Your task to perform on an android device: turn off data saver in the chrome app Image 0: 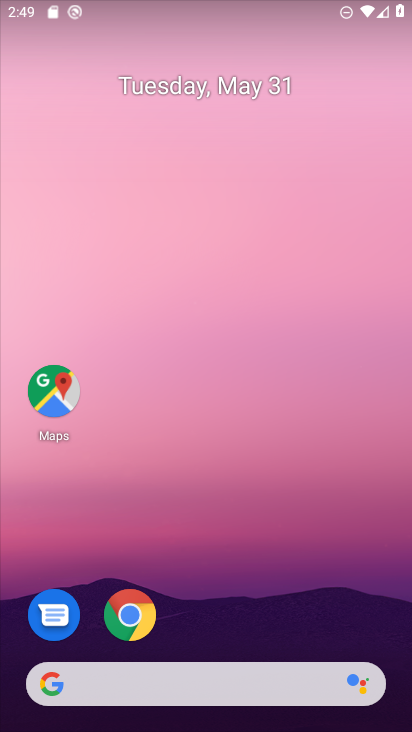
Step 0: drag from (287, 605) to (217, 192)
Your task to perform on an android device: turn off data saver in the chrome app Image 1: 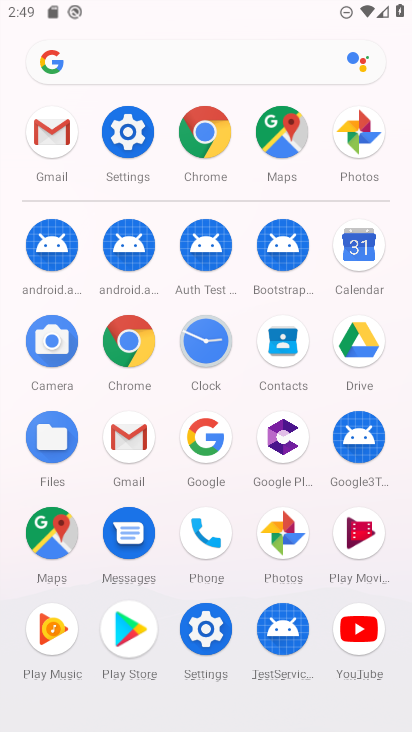
Step 1: click (205, 133)
Your task to perform on an android device: turn off data saver in the chrome app Image 2: 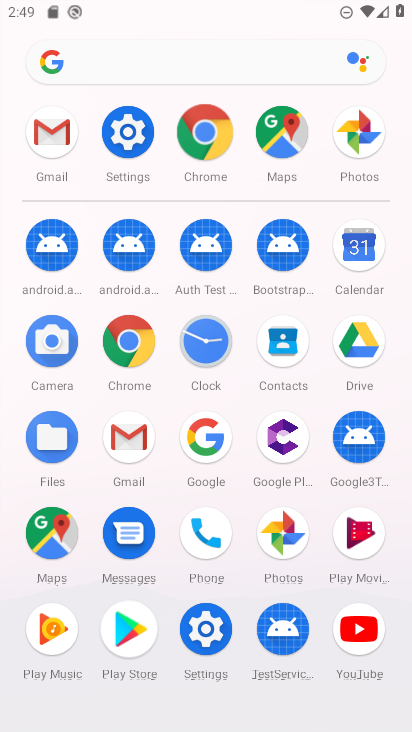
Step 2: click (205, 133)
Your task to perform on an android device: turn off data saver in the chrome app Image 3: 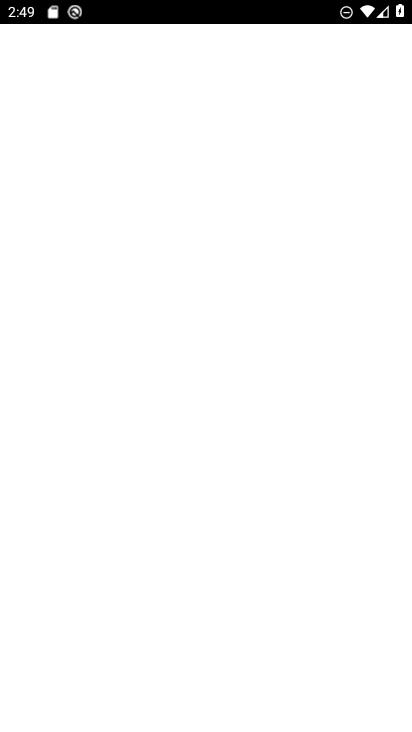
Step 3: click (205, 126)
Your task to perform on an android device: turn off data saver in the chrome app Image 4: 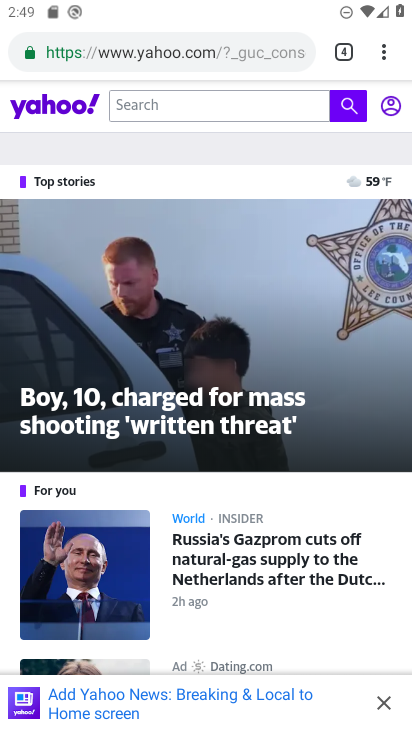
Step 4: drag from (380, 54) to (166, 509)
Your task to perform on an android device: turn off data saver in the chrome app Image 5: 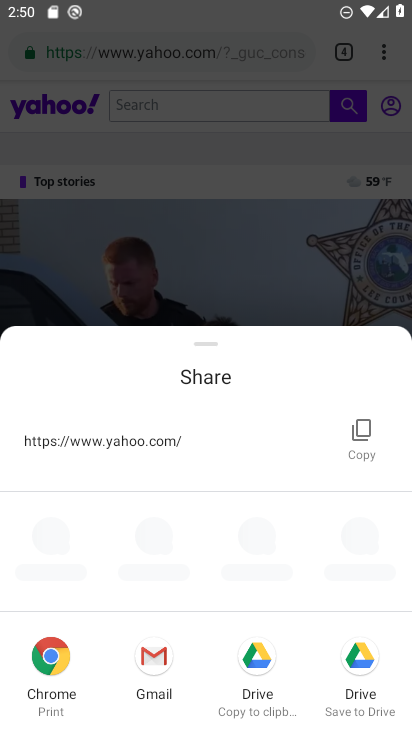
Step 5: click (255, 257)
Your task to perform on an android device: turn off data saver in the chrome app Image 6: 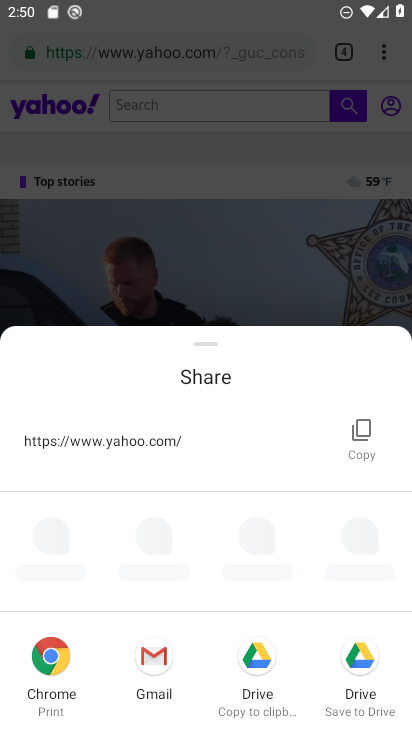
Step 6: click (255, 257)
Your task to perform on an android device: turn off data saver in the chrome app Image 7: 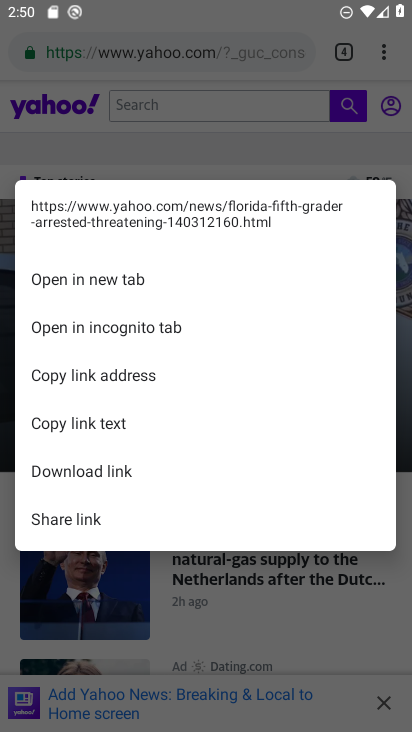
Step 7: click (382, 45)
Your task to perform on an android device: turn off data saver in the chrome app Image 8: 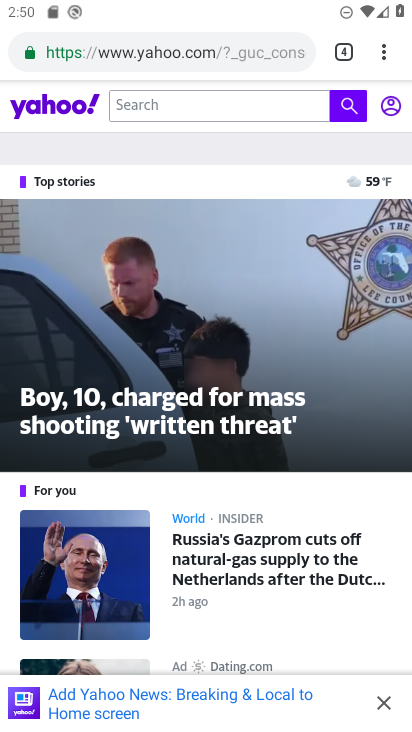
Step 8: drag from (380, 59) to (189, 646)
Your task to perform on an android device: turn off data saver in the chrome app Image 9: 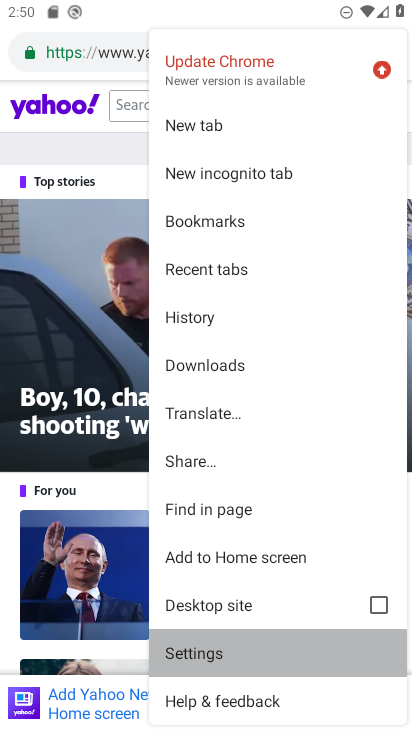
Step 9: click (180, 645)
Your task to perform on an android device: turn off data saver in the chrome app Image 10: 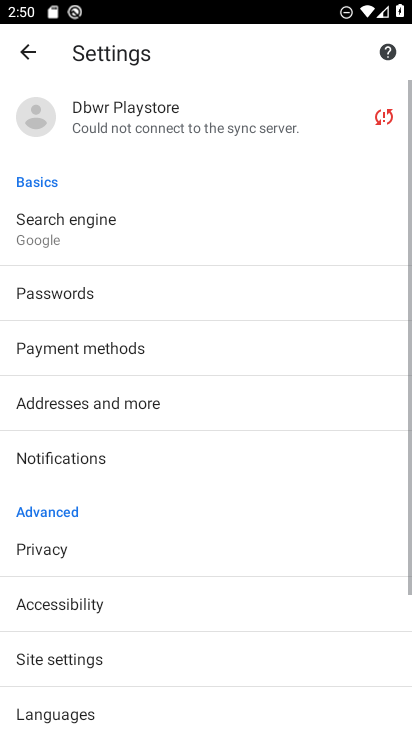
Step 10: drag from (147, 538) to (141, 177)
Your task to perform on an android device: turn off data saver in the chrome app Image 11: 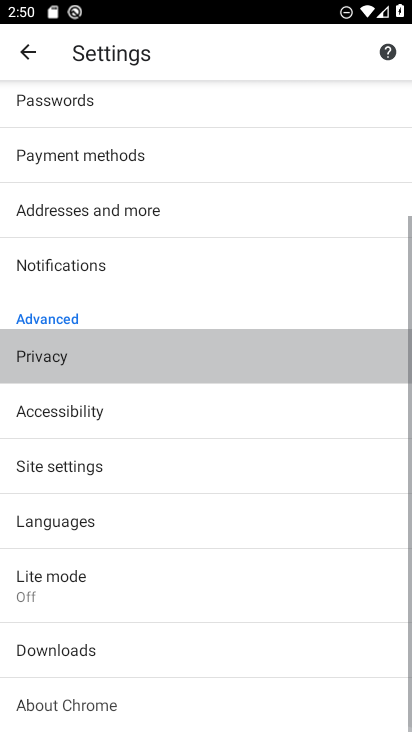
Step 11: drag from (229, 422) to (267, 286)
Your task to perform on an android device: turn off data saver in the chrome app Image 12: 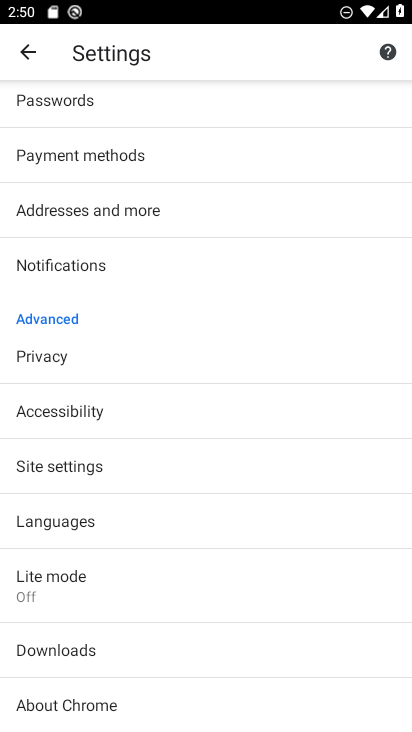
Step 12: click (49, 575)
Your task to perform on an android device: turn off data saver in the chrome app Image 13: 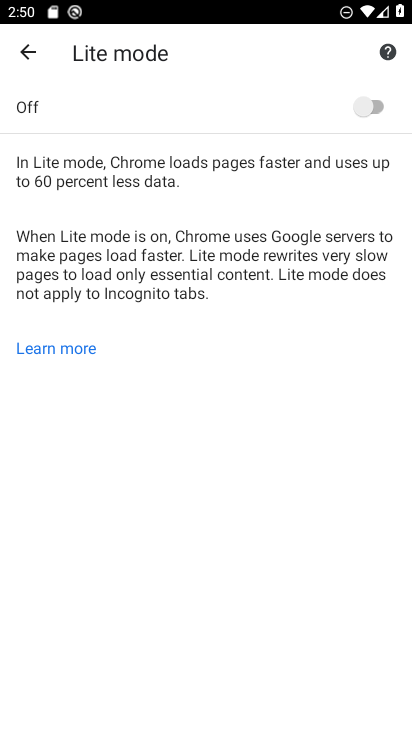
Step 13: task complete